Your task to perform on an android device: allow cookies in the chrome app Image 0: 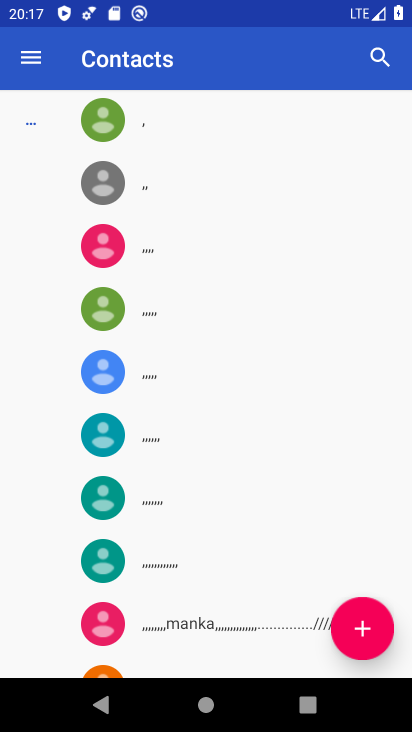
Step 0: press back button
Your task to perform on an android device: allow cookies in the chrome app Image 1: 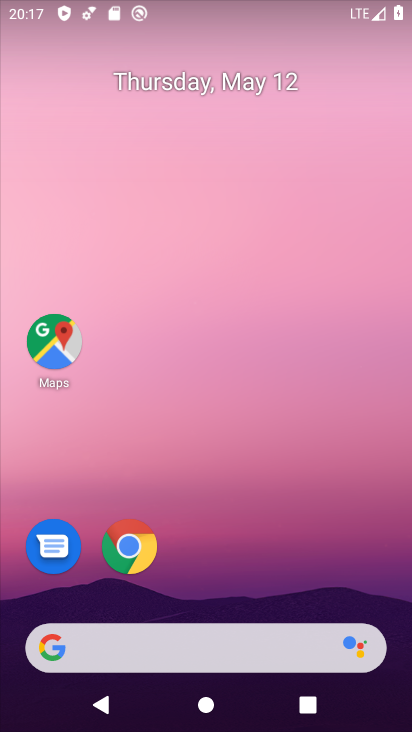
Step 1: click (123, 547)
Your task to perform on an android device: allow cookies in the chrome app Image 2: 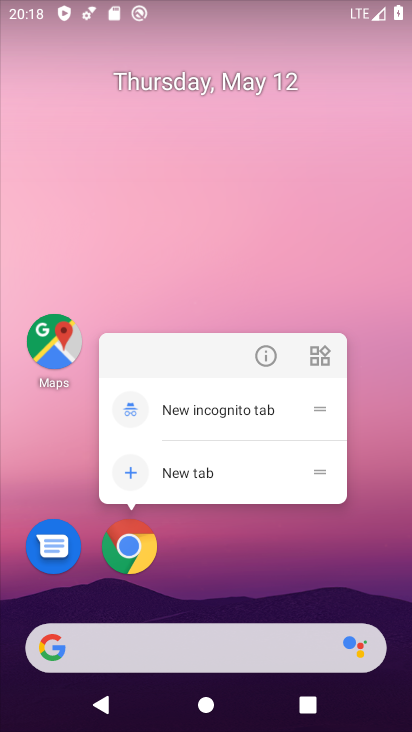
Step 2: click (133, 542)
Your task to perform on an android device: allow cookies in the chrome app Image 3: 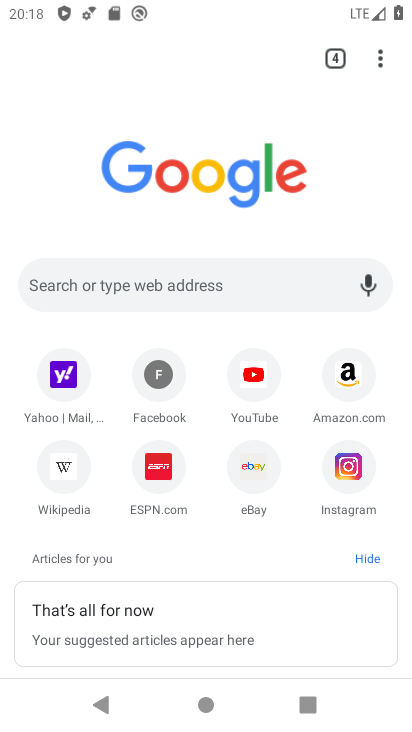
Step 3: drag from (377, 59) to (210, 483)
Your task to perform on an android device: allow cookies in the chrome app Image 4: 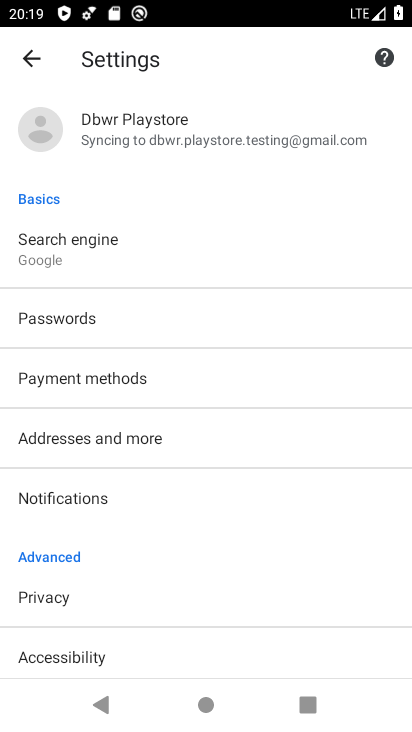
Step 4: drag from (152, 613) to (204, 233)
Your task to perform on an android device: allow cookies in the chrome app Image 5: 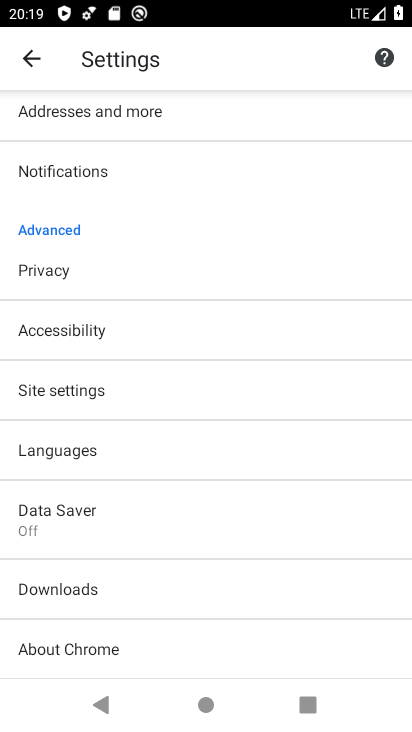
Step 5: click (74, 395)
Your task to perform on an android device: allow cookies in the chrome app Image 6: 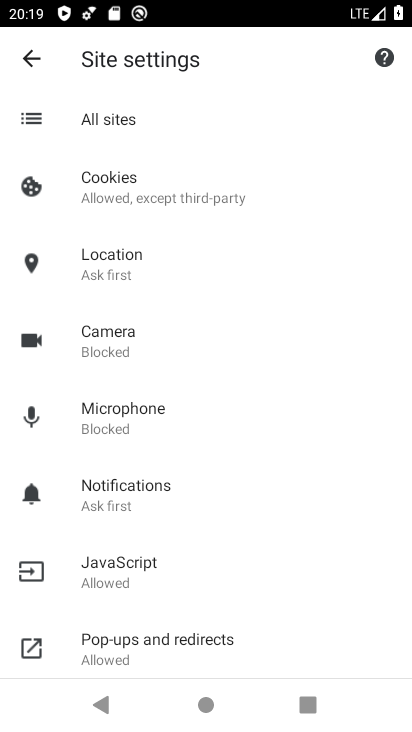
Step 6: click (155, 205)
Your task to perform on an android device: allow cookies in the chrome app Image 7: 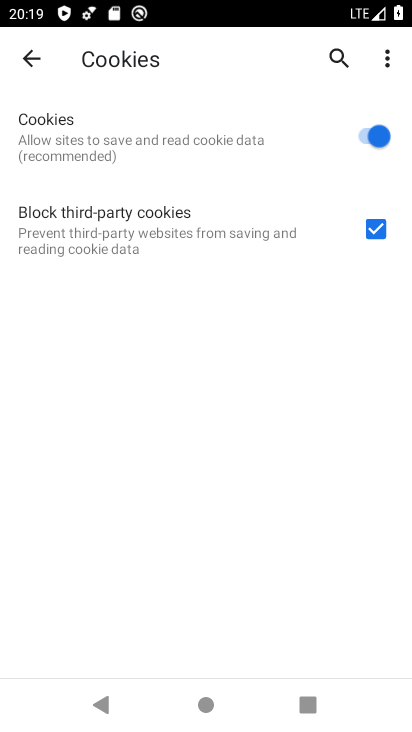
Step 7: task complete